Your task to perform on an android device: turn pop-ups off in chrome Image 0: 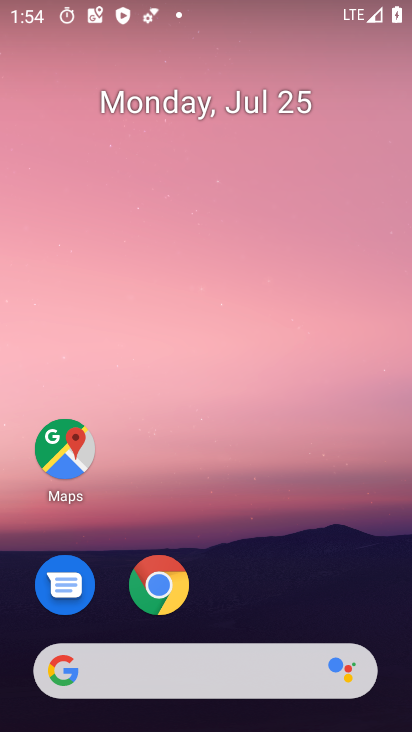
Step 0: click (166, 593)
Your task to perform on an android device: turn pop-ups off in chrome Image 1: 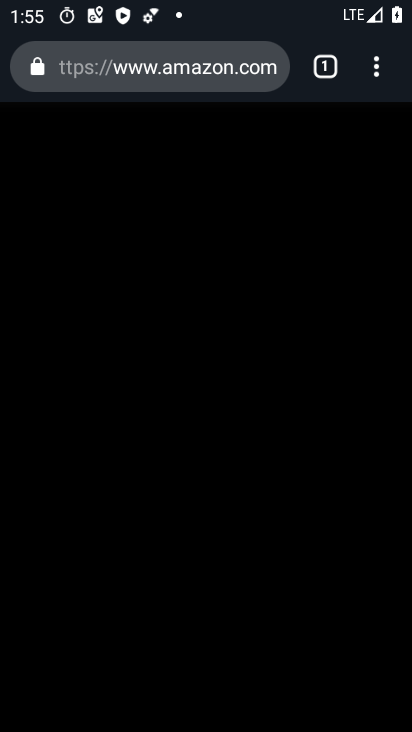
Step 1: drag from (366, 74) to (137, 587)
Your task to perform on an android device: turn pop-ups off in chrome Image 2: 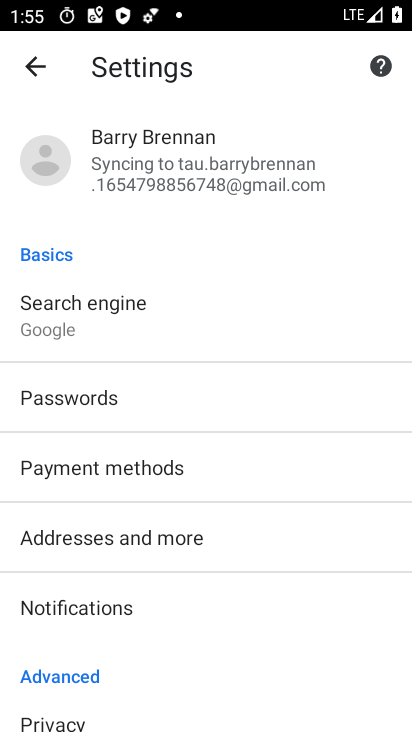
Step 2: drag from (156, 587) to (123, 185)
Your task to perform on an android device: turn pop-ups off in chrome Image 3: 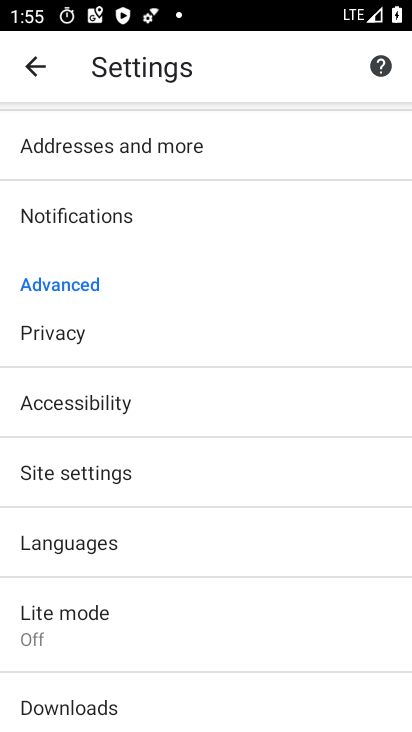
Step 3: click (108, 479)
Your task to perform on an android device: turn pop-ups off in chrome Image 4: 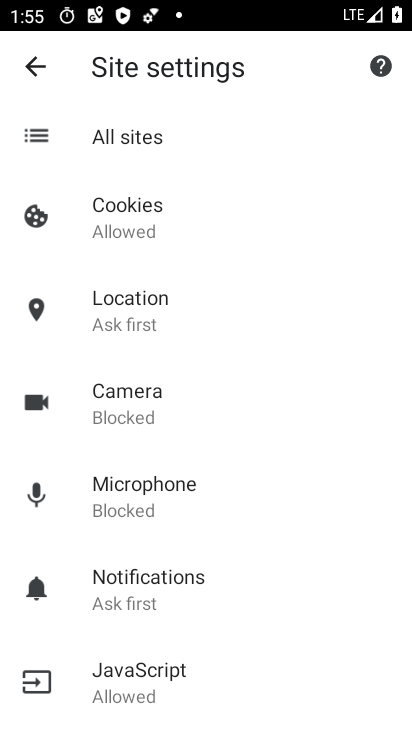
Step 4: drag from (152, 597) to (142, 249)
Your task to perform on an android device: turn pop-ups off in chrome Image 5: 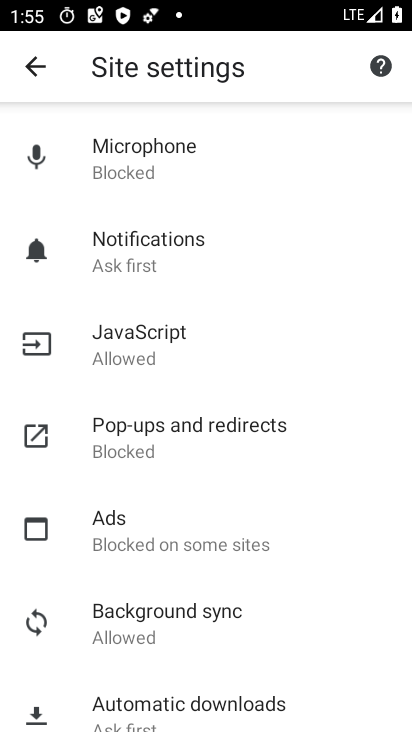
Step 5: click (145, 433)
Your task to perform on an android device: turn pop-ups off in chrome Image 6: 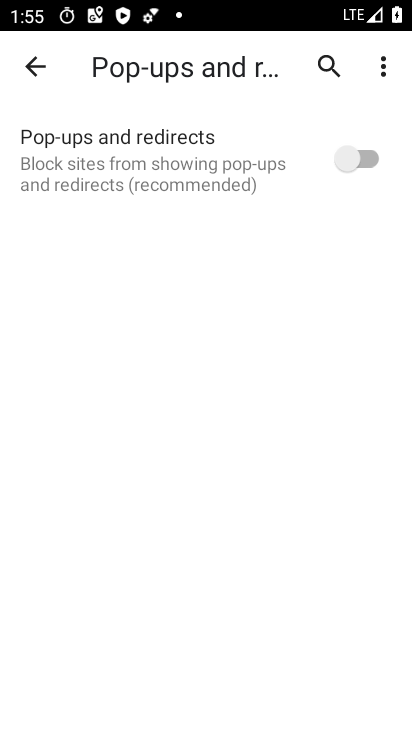
Step 6: task complete